Your task to perform on an android device: turn on notifications settings in the gmail app Image 0: 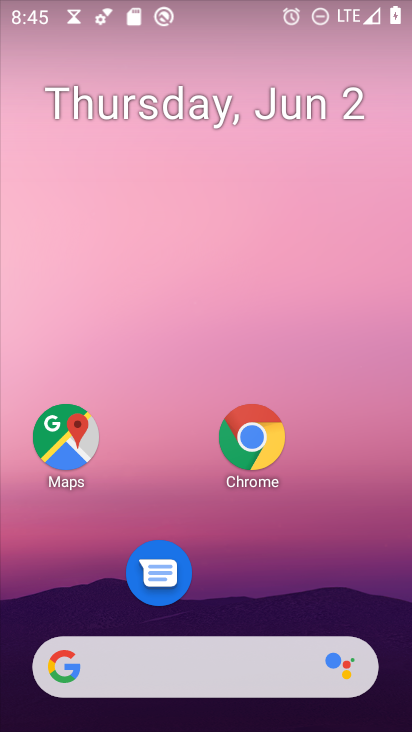
Step 0: press home button
Your task to perform on an android device: turn on notifications settings in the gmail app Image 1: 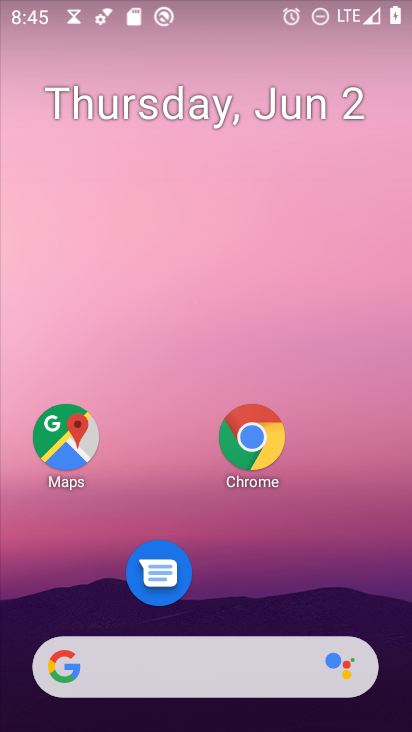
Step 1: drag from (153, 661) to (277, 42)
Your task to perform on an android device: turn on notifications settings in the gmail app Image 2: 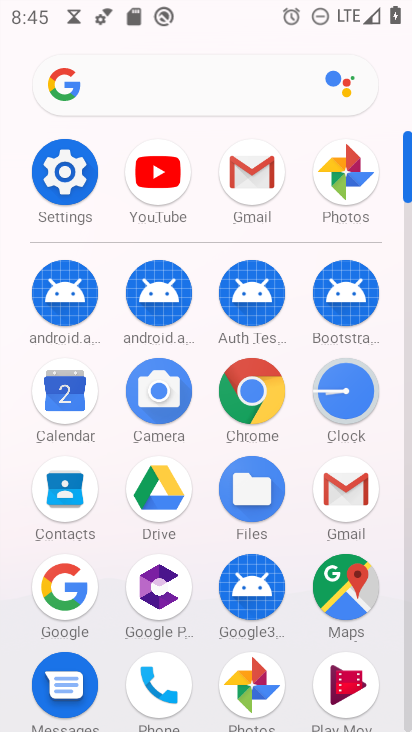
Step 2: click (255, 190)
Your task to perform on an android device: turn on notifications settings in the gmail app Image 3: 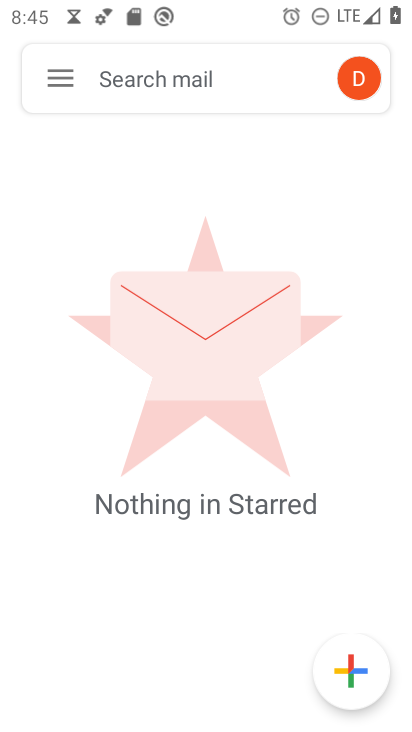
Step 3: click (61, 81)
Your task to perform on an android device: turn on notifications settings in the gmail app Image 4: 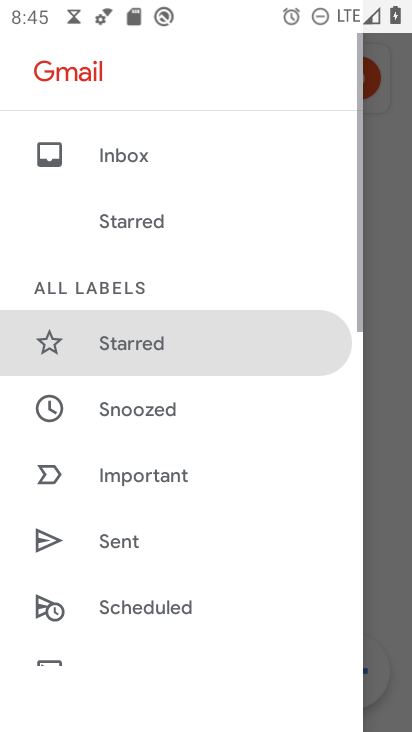
Step 4: drag from (164, 633) to (267, 56)
Your task to perform on an android device: turn on notifications settings in the gmail app Image 5: 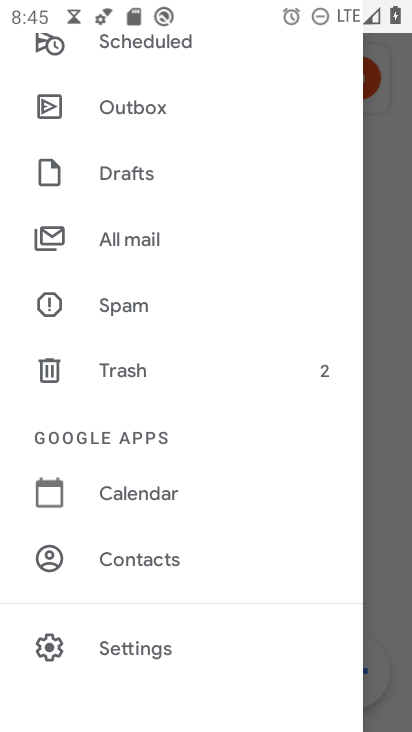
Step 5: click (143, 645)
Your task to perform on an android device: turn on notifications settings in the gmail app Image 6: 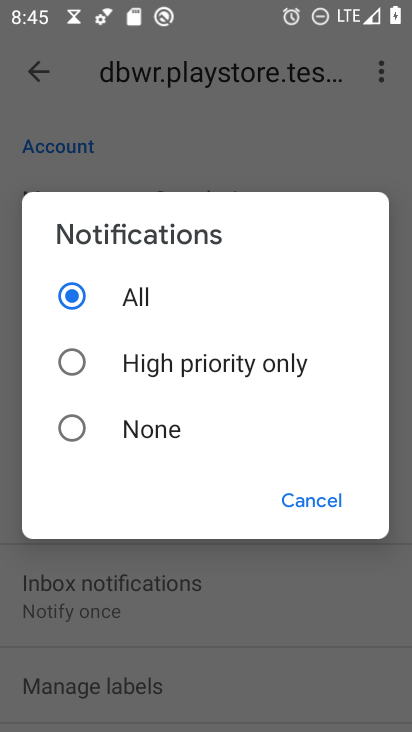
Step 6: click (315, 514)
Your task to perform on an android device: turn on notifications settings in the gmail app Image 7: 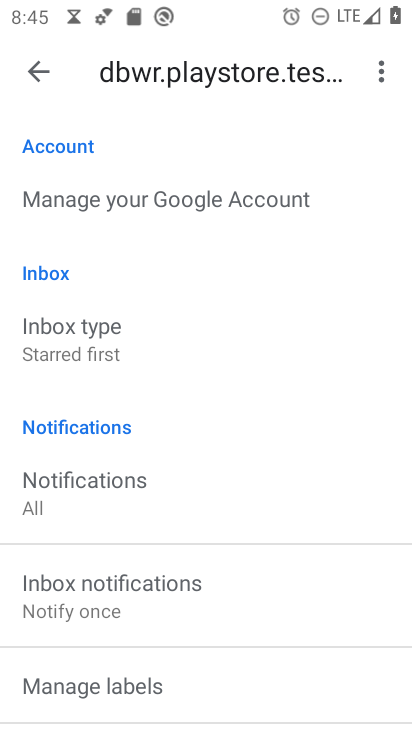
Step 7: task complete